Your task to perform on an android device: Open my contact list Image 0: 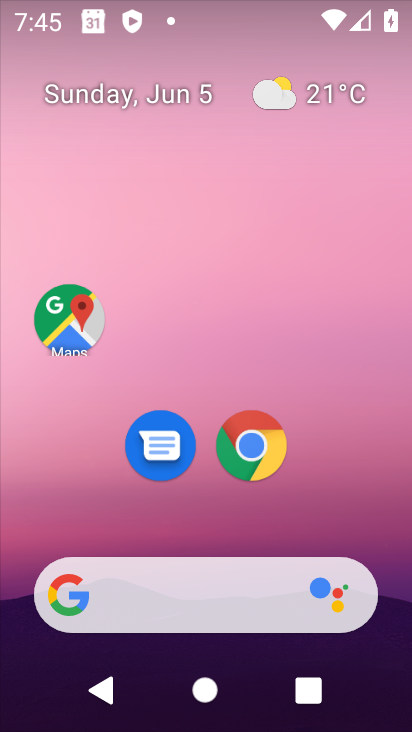
Step 0: press home button
Your task to perform on an android device: Open my contact list Image 1: 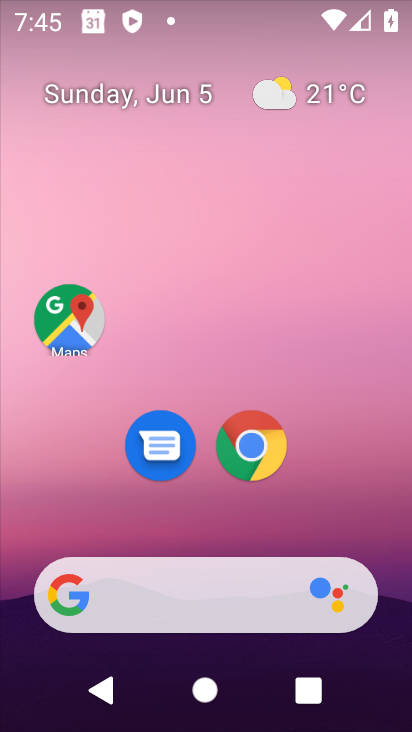
Step 1: drag from (372, 482) to (370, 183)
Your task to perform on an android device: Open my contact list Image 2: 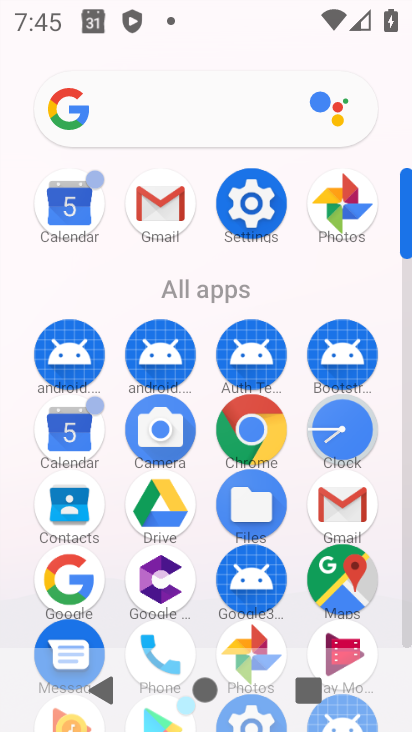
Step 2: click (61, 498)
Your task to perform on an android device: Open my contact list Image 3: 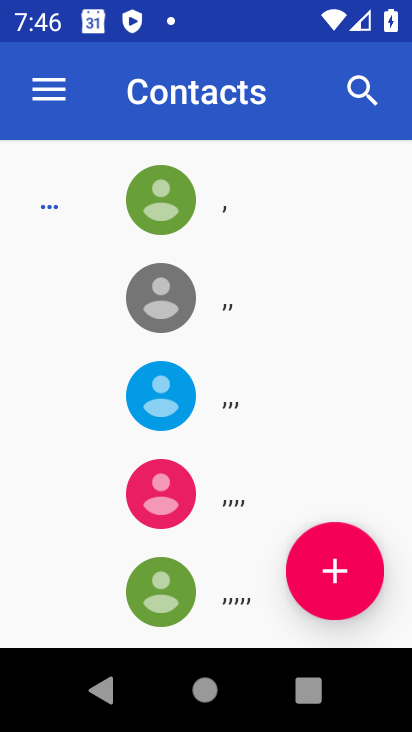
Step 3: task complete